Your task to perform on an android device: Open CNN.com Image 0: 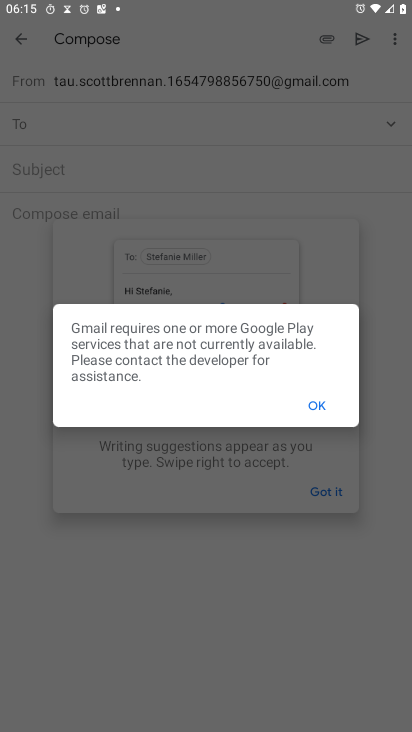
Step 0: press home button
Your task to perform on an android device: Open CNN.com Image 1: 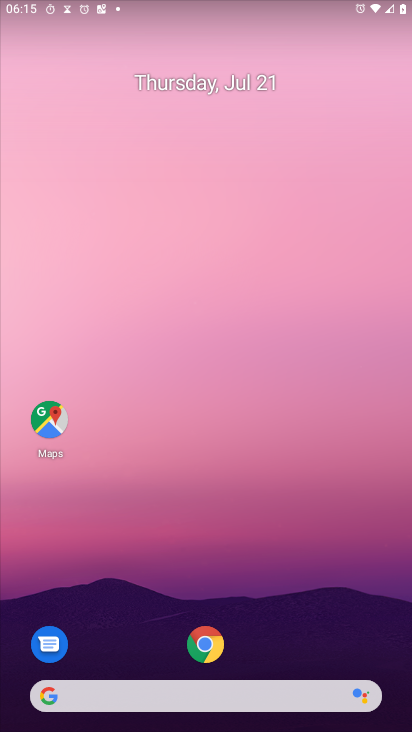
Step 1: click (52, 698)
Your task to perform on an android device: Open CNN.com Image 2: 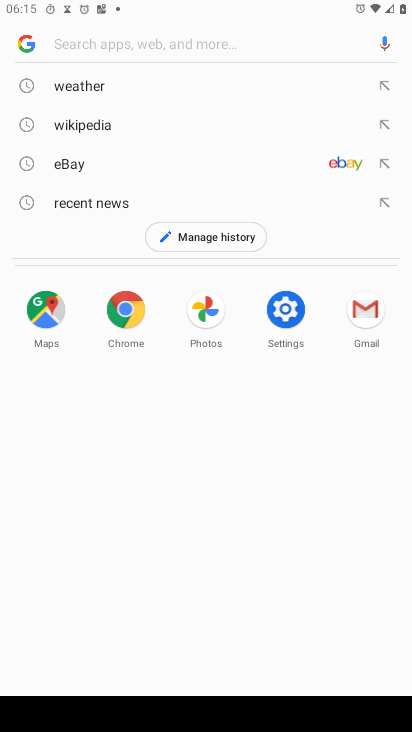
Step 2: type "CNN.com"
Your task to perform on an android device: Open CNN.com Image 3: 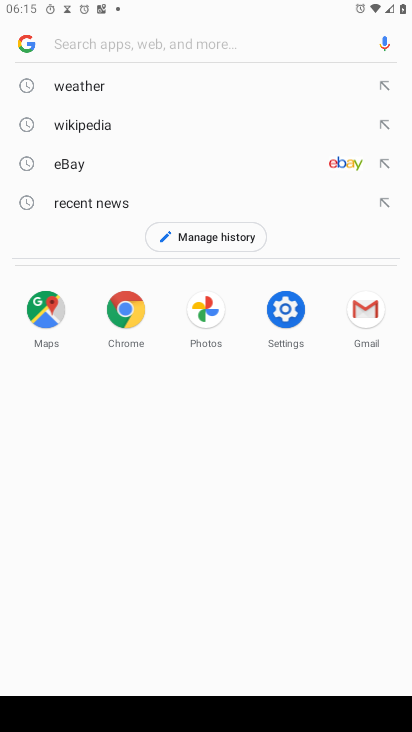
Step 3: click (66, 45)
Your task to perform on an android device: Open CNN.com Image 4: 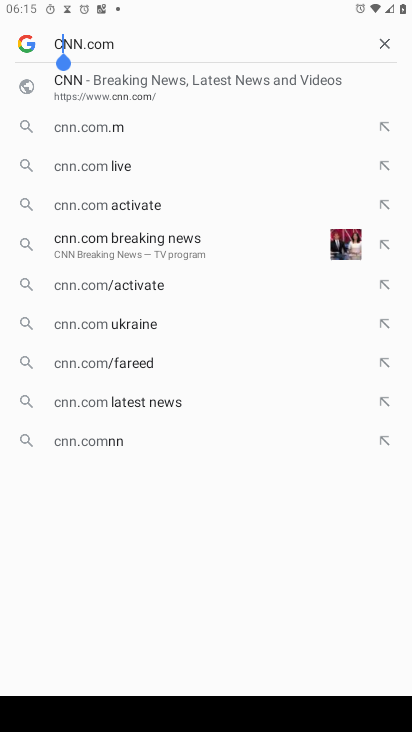
Step 4: press enter
Your task to perform on an android device: Open CNN.com Image 5: 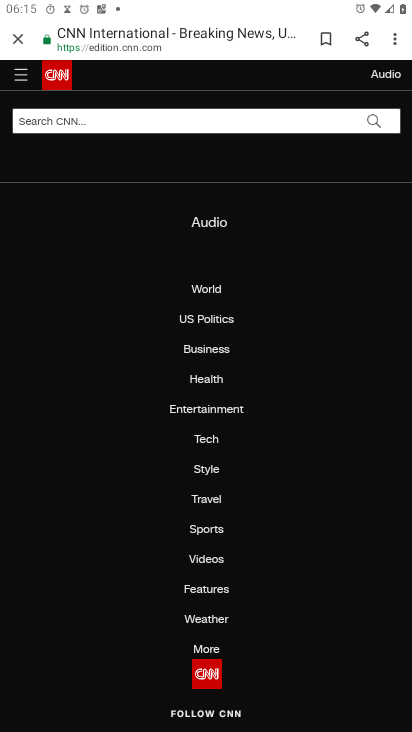
Step 5: task complete